Your task to perform on an android device: Open my contact list Image 0: 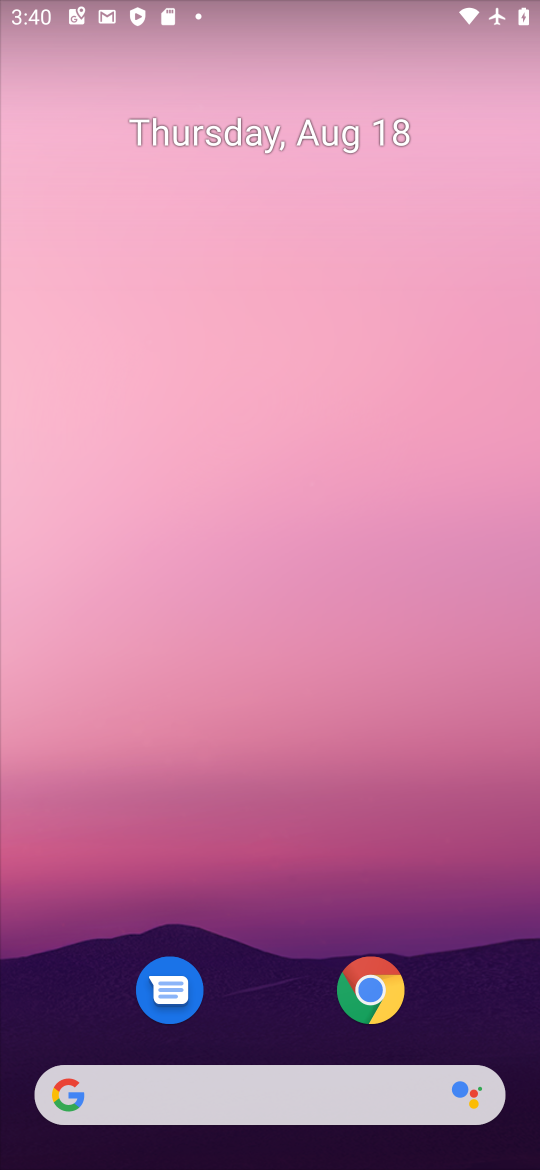
Step 0: drag from (270, 923) to (331, 132)
Your task to perform on an android device: Open my contact list Image 1: 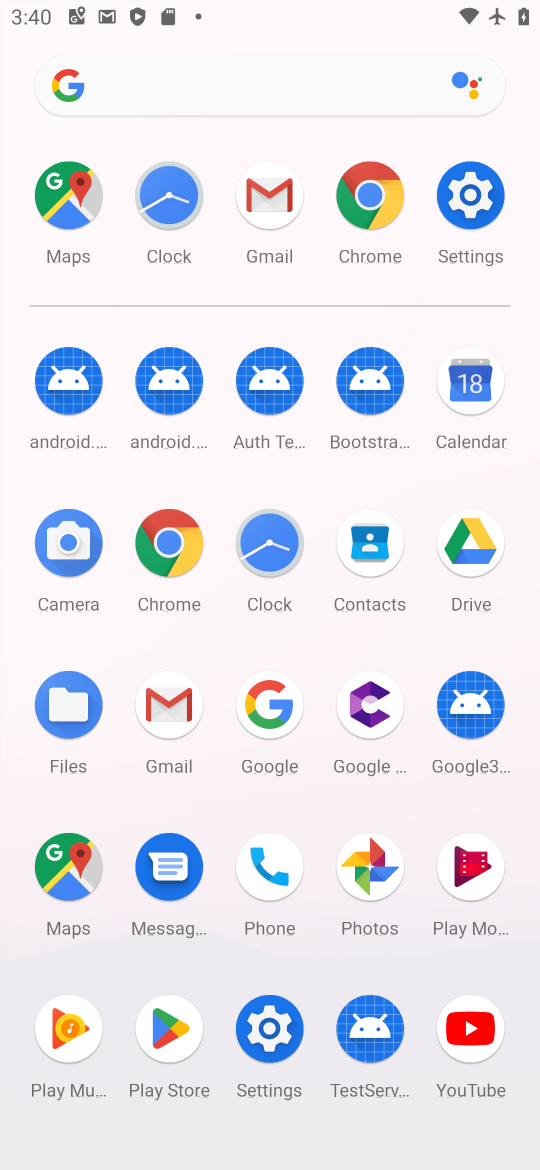
Step 1: click (375, 540)
Your task to perform on an android device: Open my contact list Image 2: 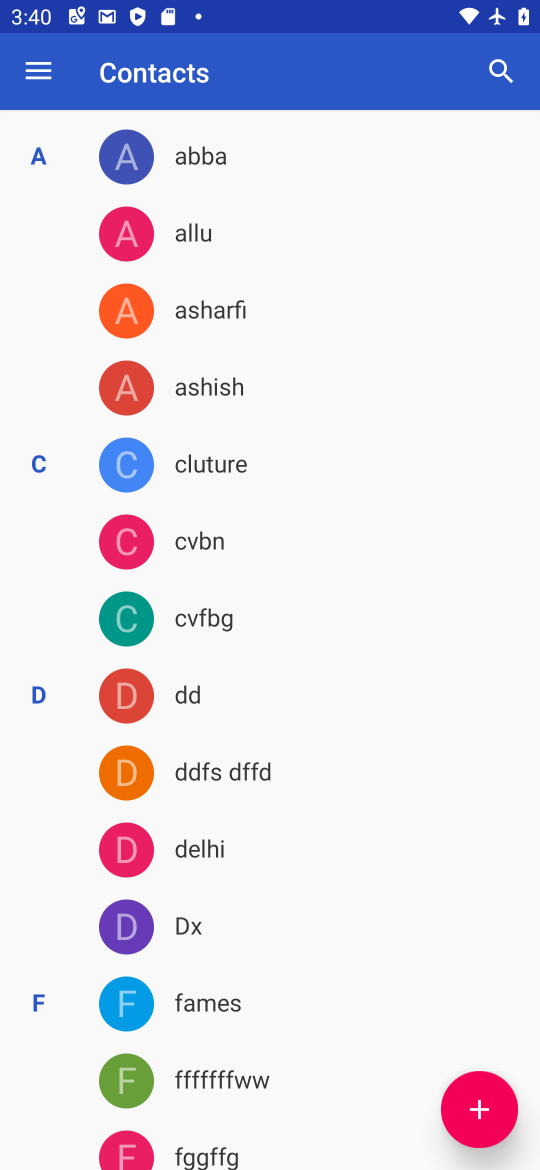
Step 2: task complete